Your task to perform on an android device: allow cookies in the chrome app Image 0: 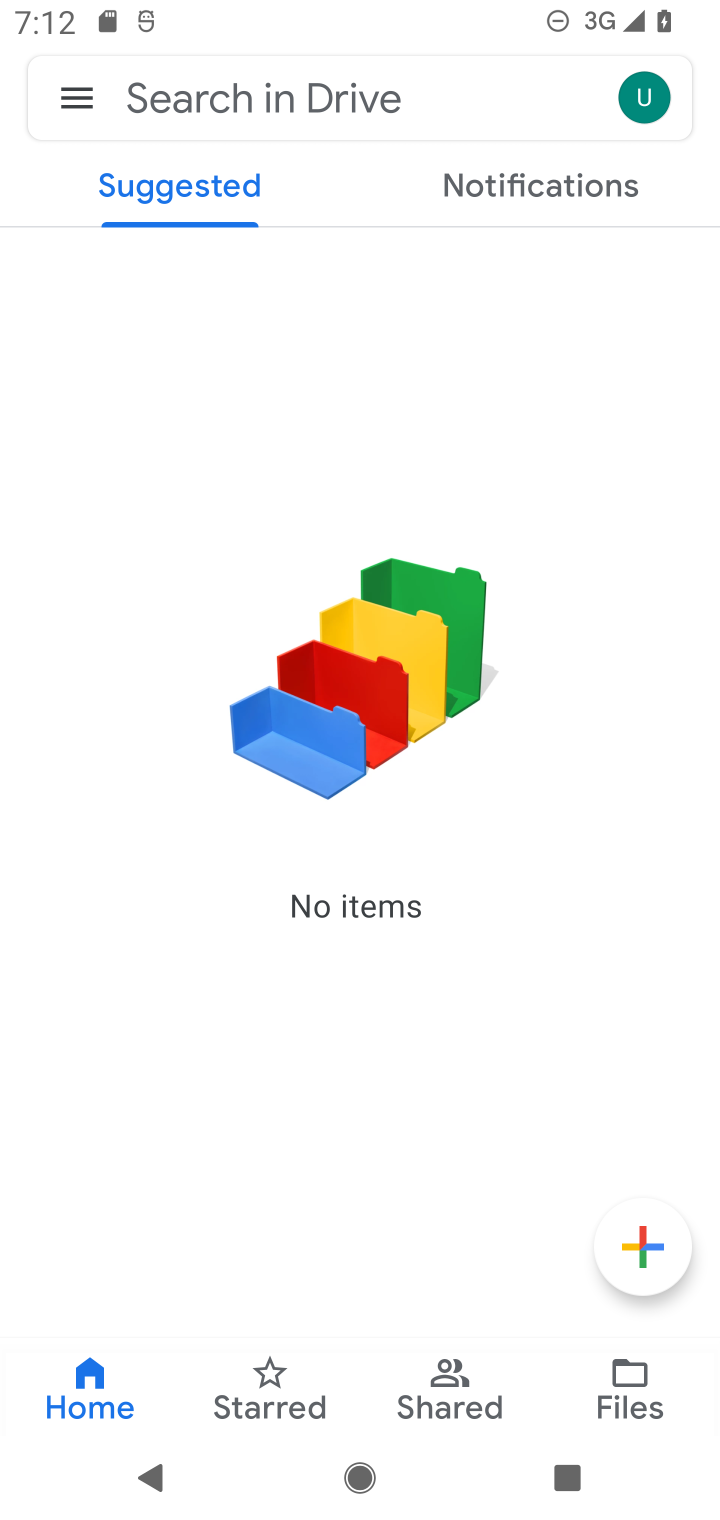
Step 0: press home button
Your task to perform on an android device: allow cookies in the chrome app Image 1: 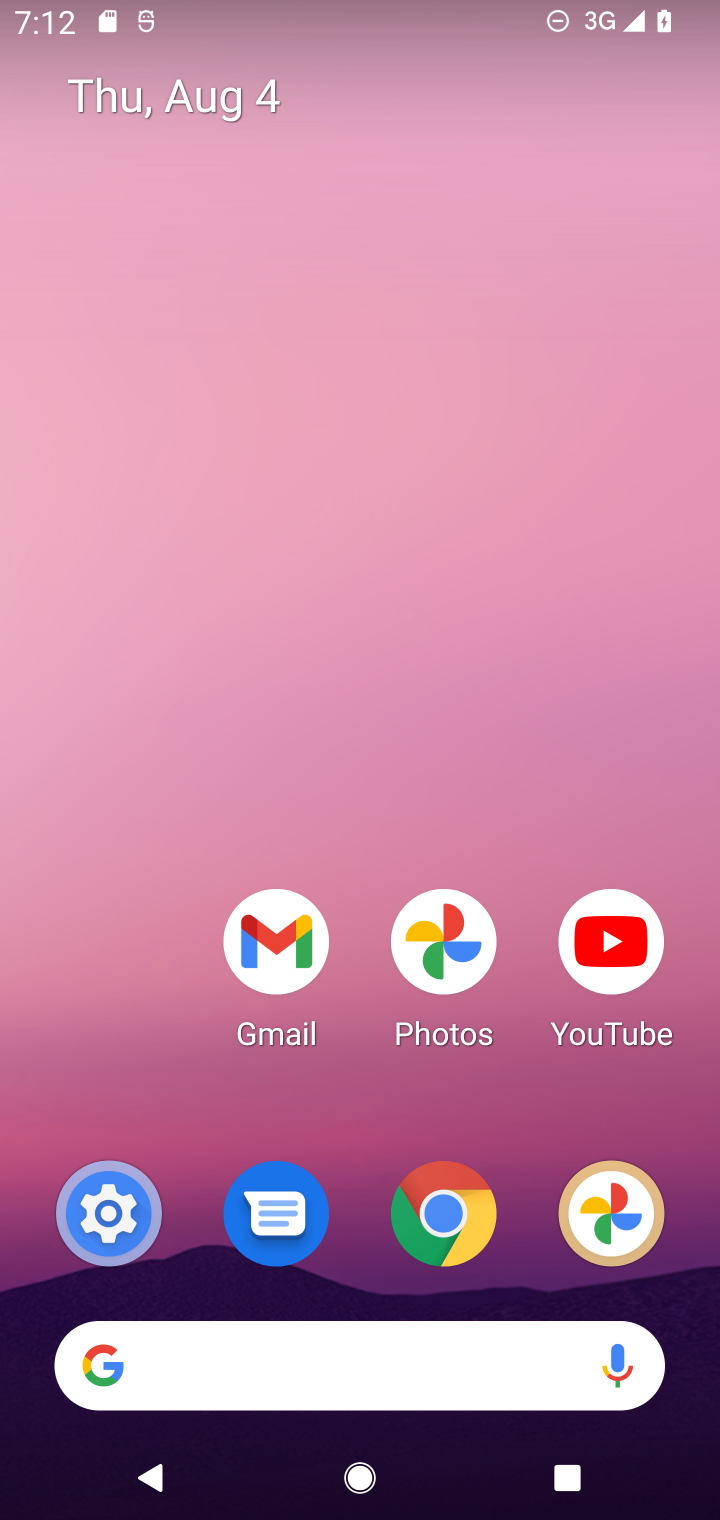
Step 1: drag from (154, 1099) to (139, 249)
Your task to perform on an android device: allow cookies in the chrome app Image 2: 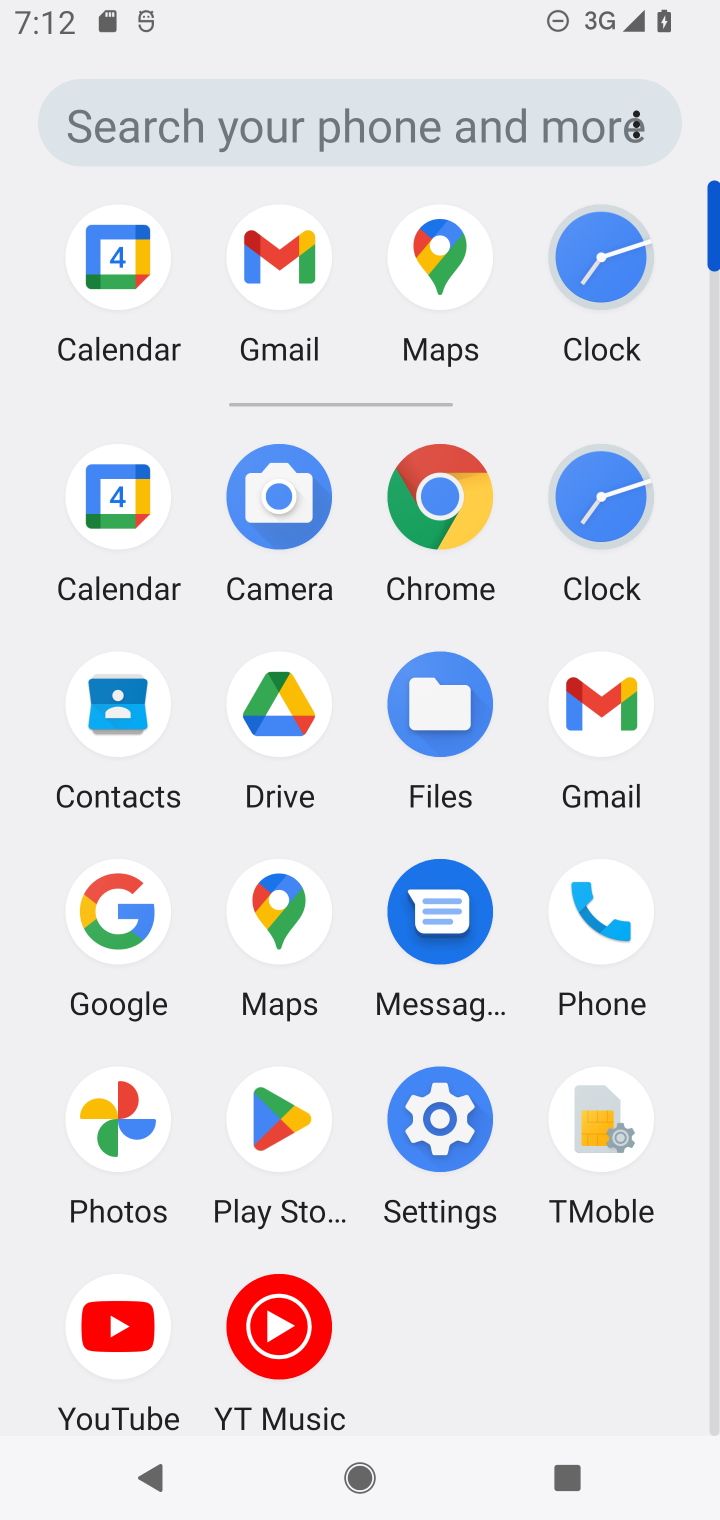
Step 2: click (421, 516)
Your task to perform on an android device: allow cookies in the chrome app Image 3: 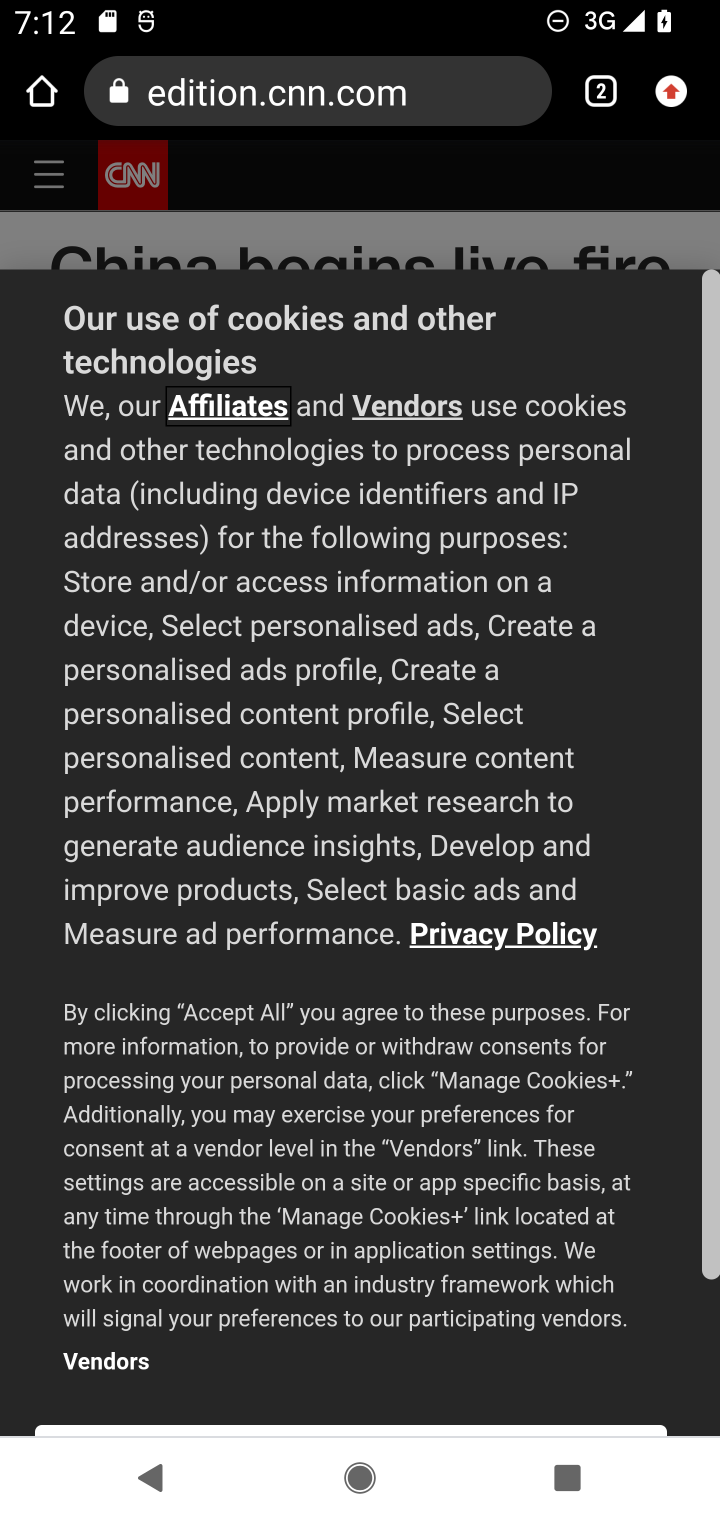
Step 3: click (672, 99)
Your task to perform on an android device: allow cookies in the chrome app Image 4: 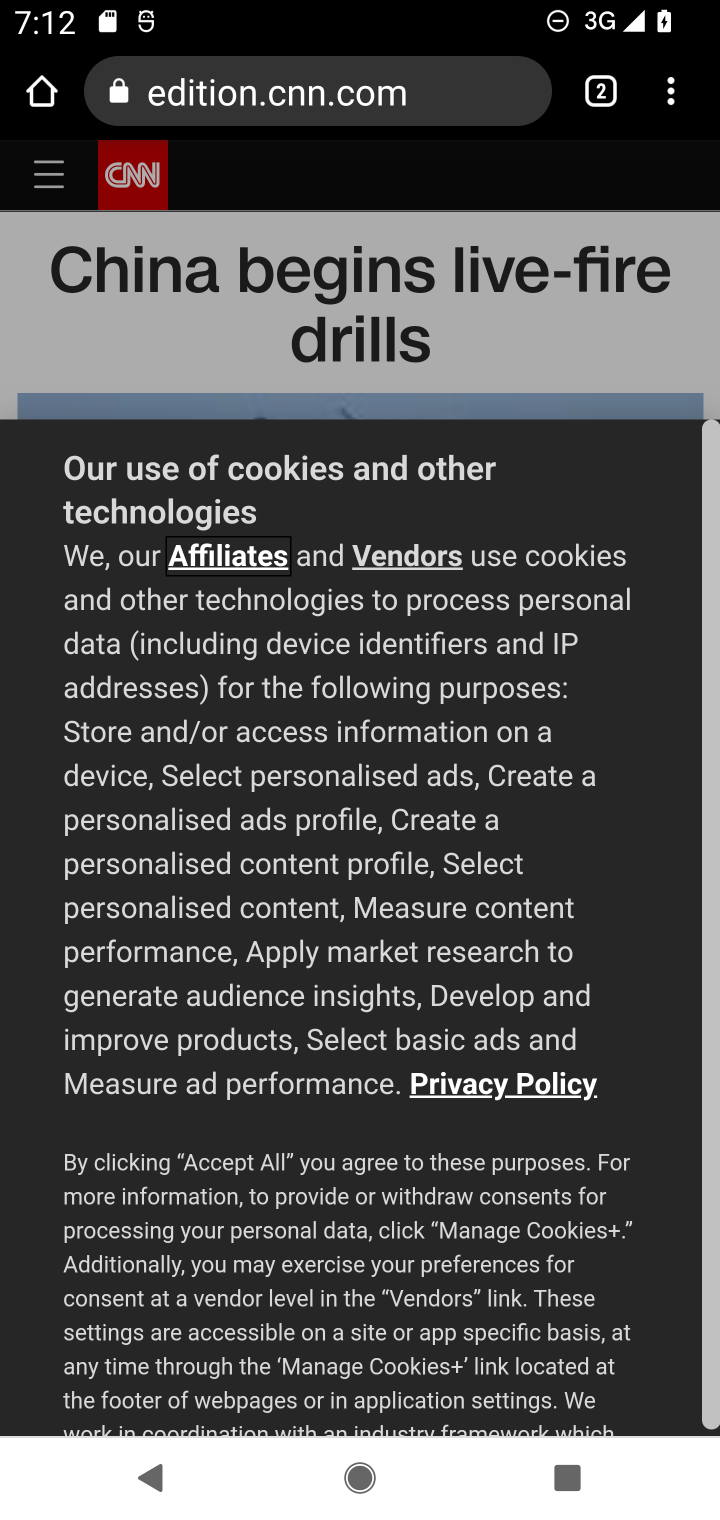
Step 4: click (678, 109)
Your task to perform on an android device: allow cookies in the chrome app Image 5: 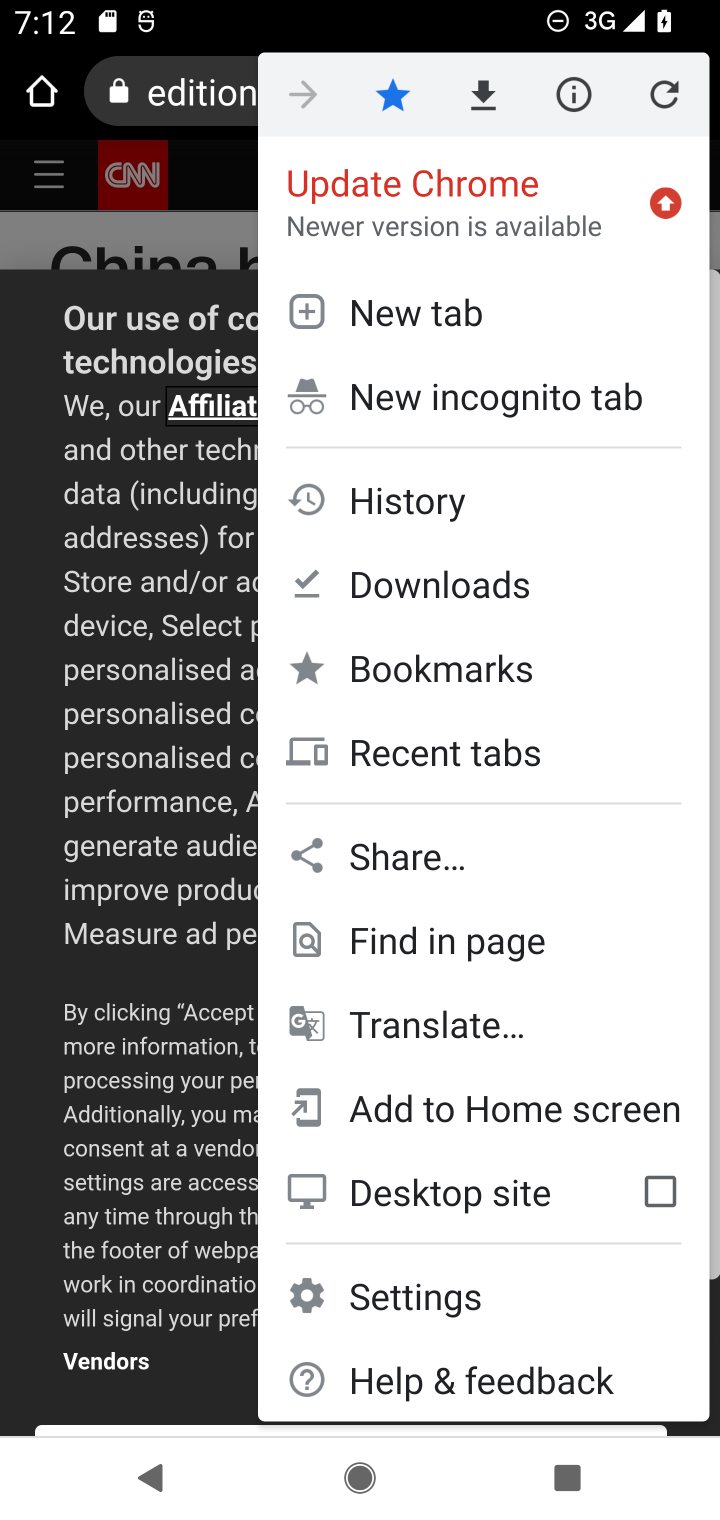
Step 5: drag from (532, 1088) to (548, 756)
Your task to perform on an android device: allow cookies in the chrome app Image 6: 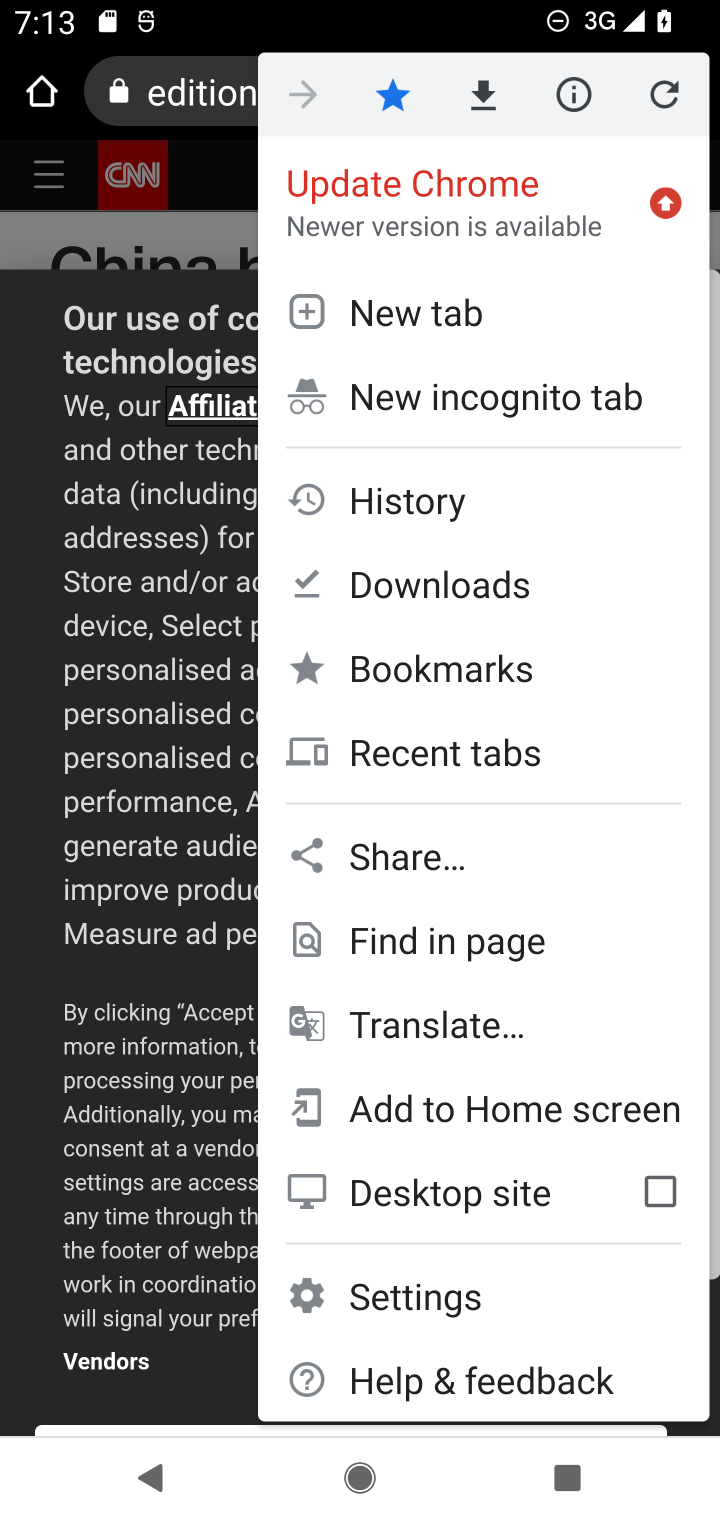
Step 6: click (422, 1296)
Your task to perform on an android device: allow cookies in the chrome app Image 7: 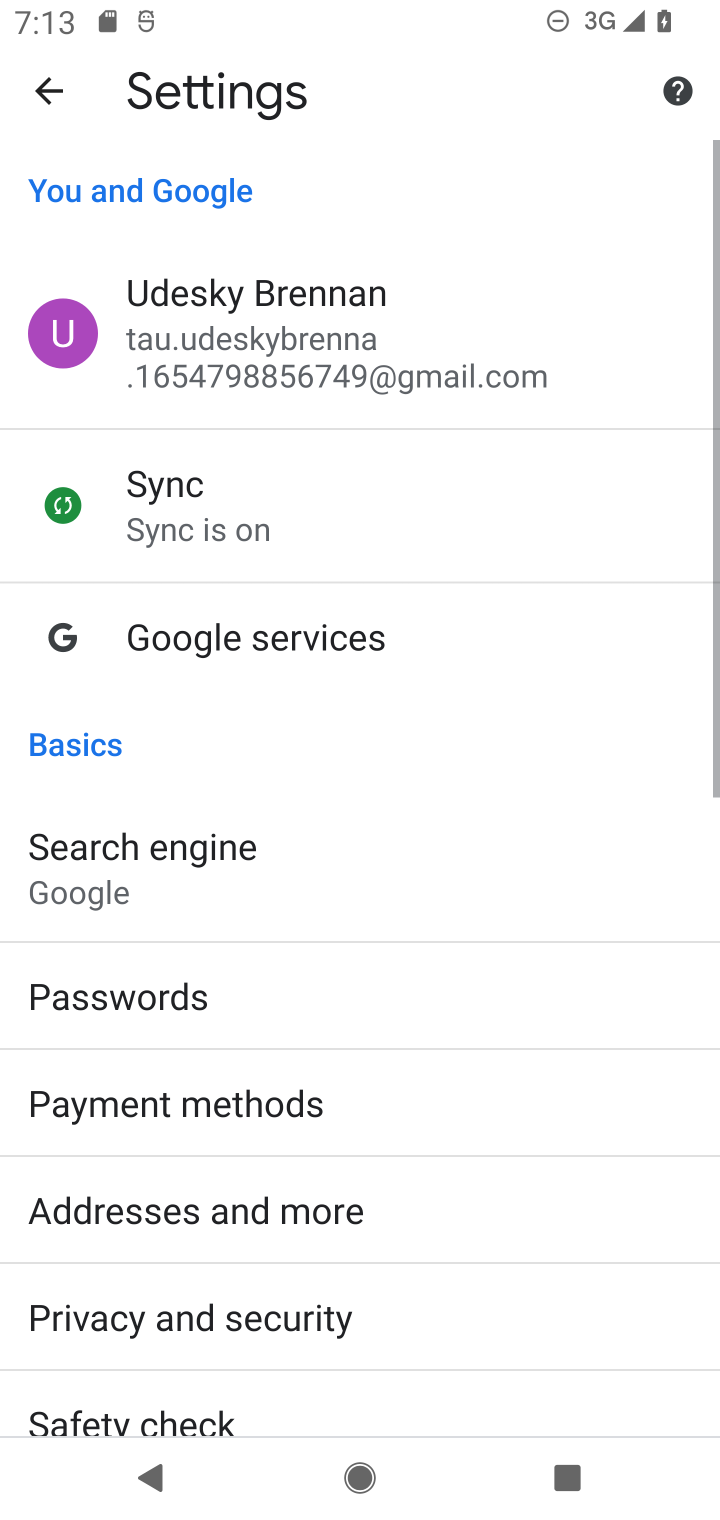
Step 7: drag from (531, 1175) to (517, 529)
Your task to perform on an android device: allow cookies in the chrome app Image 8: 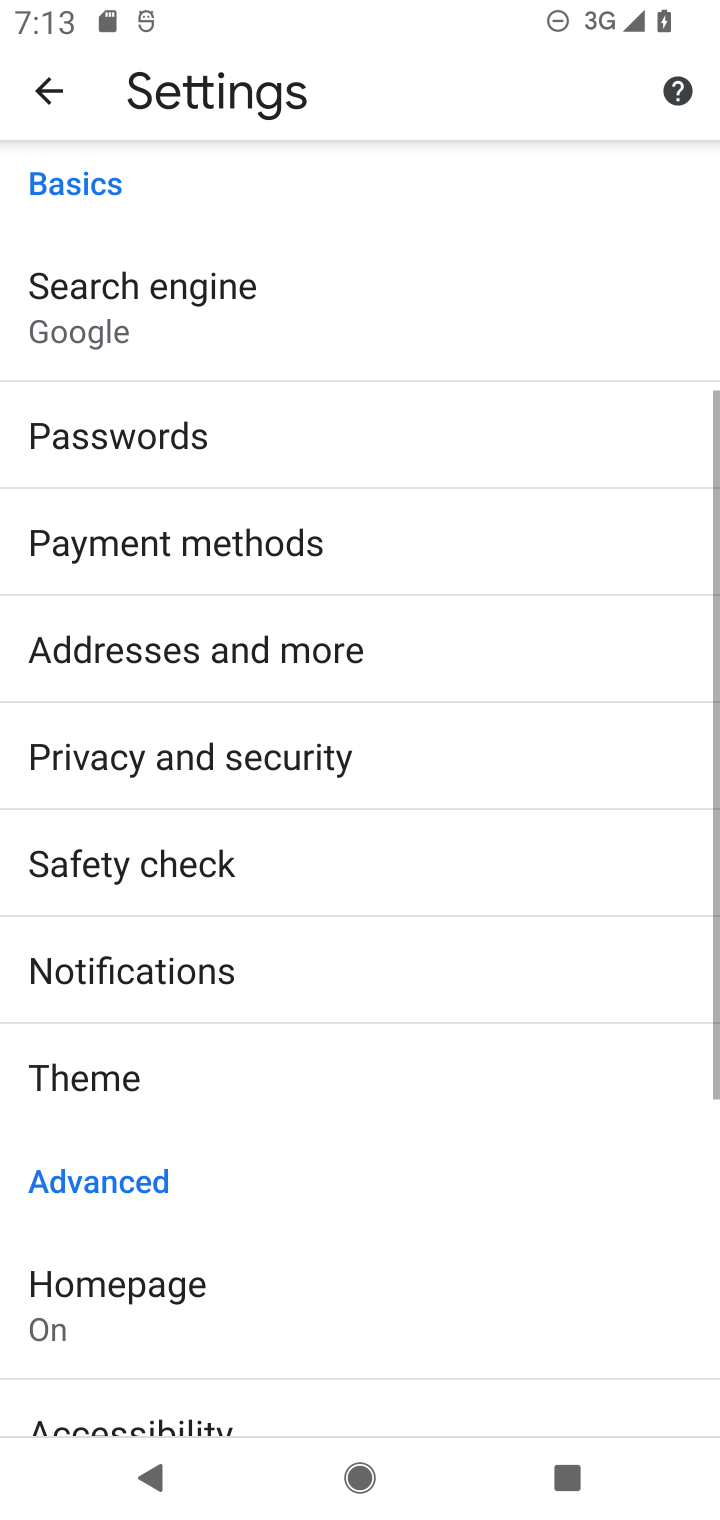
Step 8: drag from (552, 1084) to (509, 685)
Your task to perform on an android device: allow cookies in the chrome app Image 9: 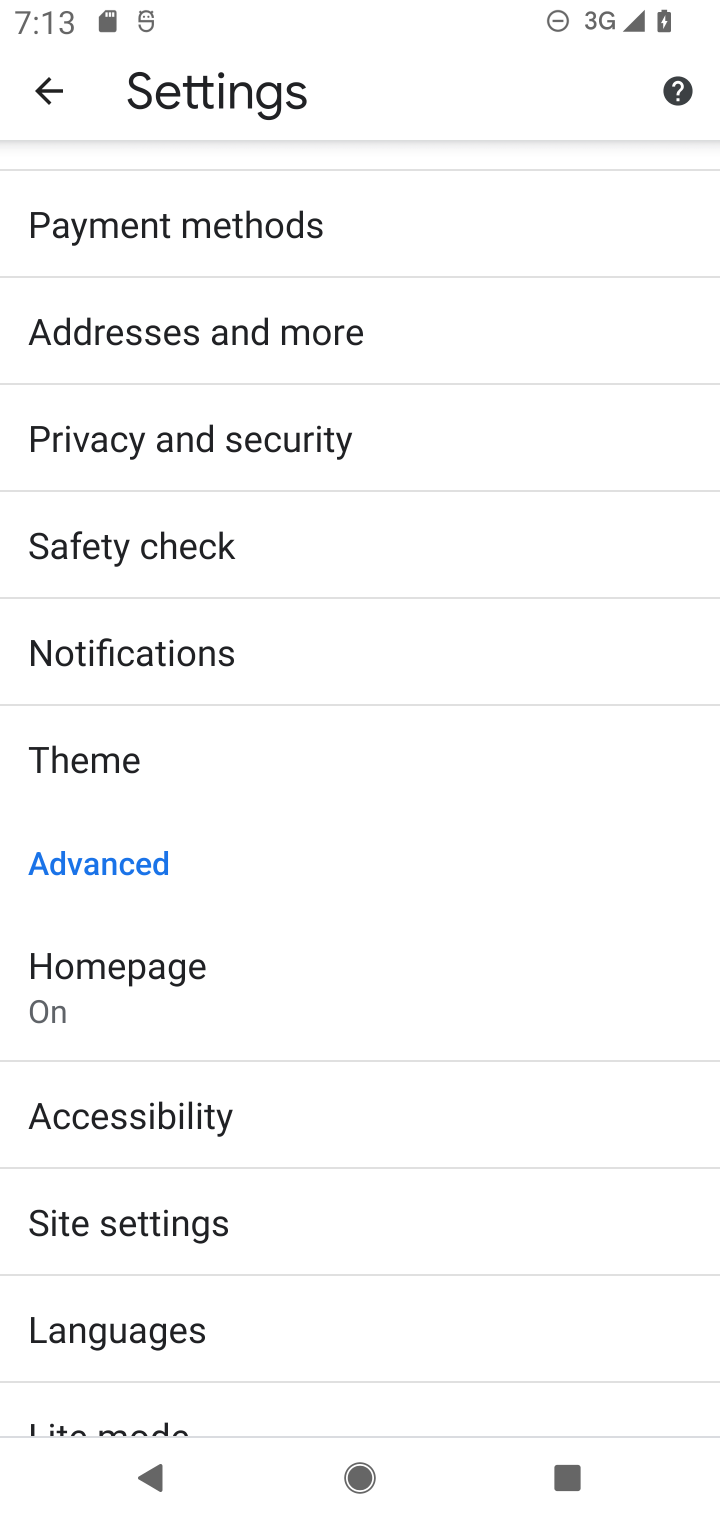
Step 9: drag from (462, 1237) to (490, 526)
Your task to perform on an android device: allow cookies in the chrome app Image 10: 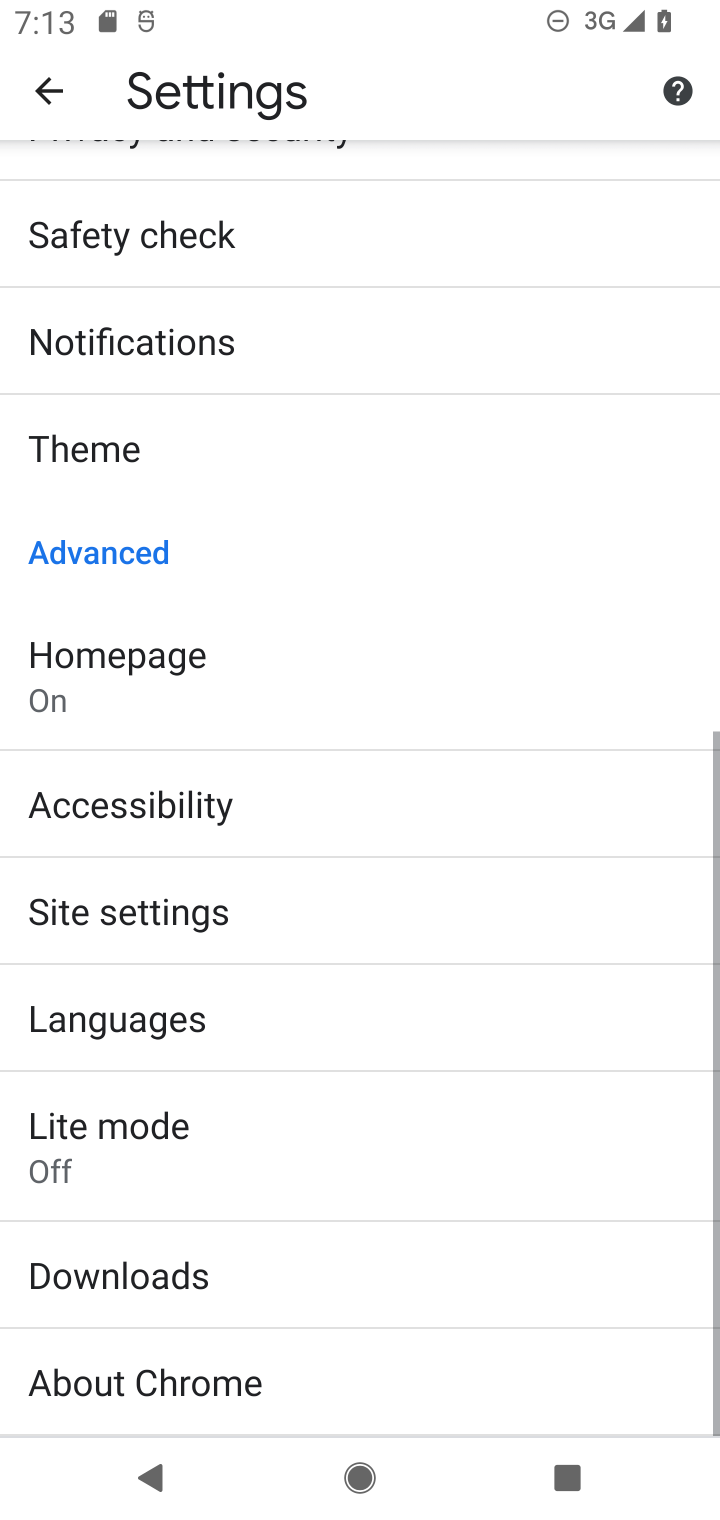
Step 10: drag from (457, 1315) to (452, 827)
Your task to perform on an android device: allow cookies in the chrome app Image 11: 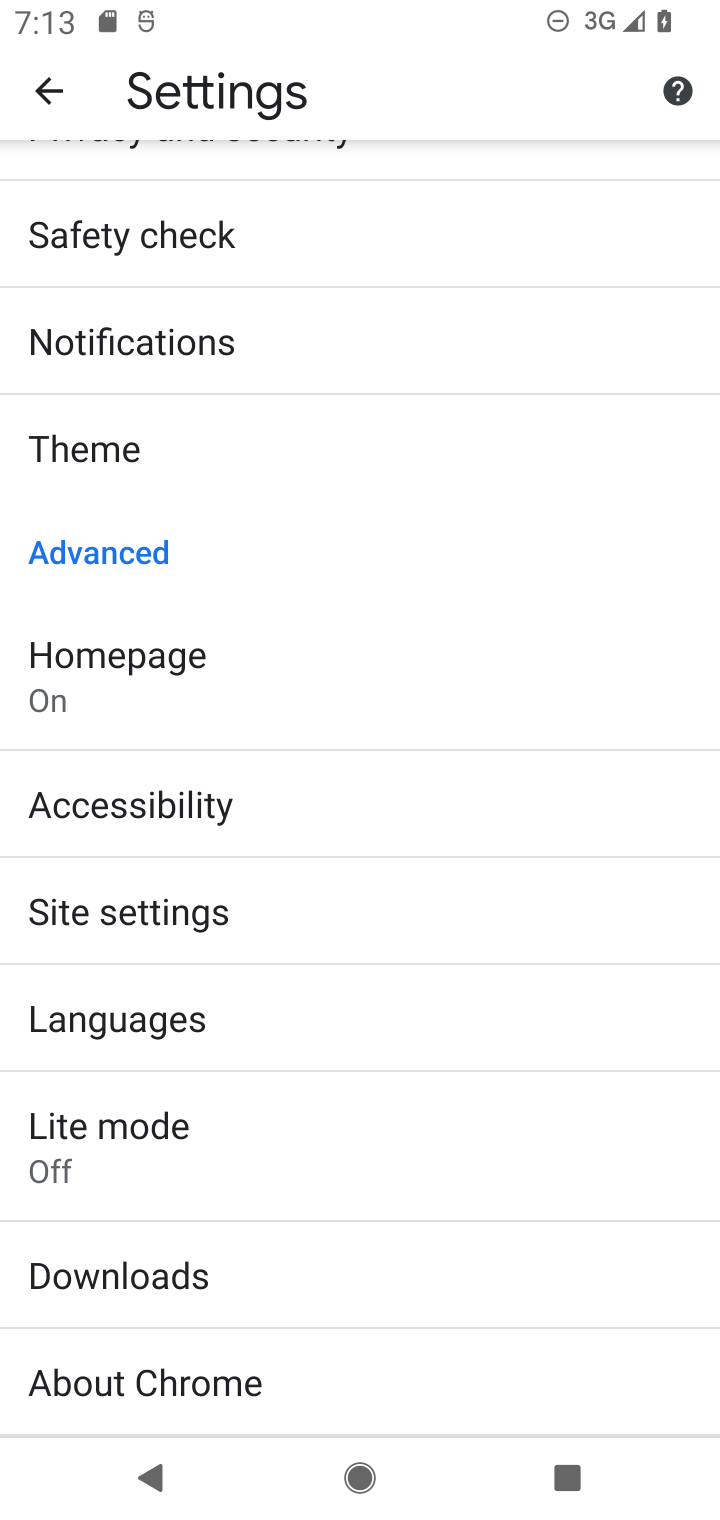
Step 11: drag from (451, 407) to (451, 1000)
Your task to perform on an android device: allow cookies in the chrome app Image 12: 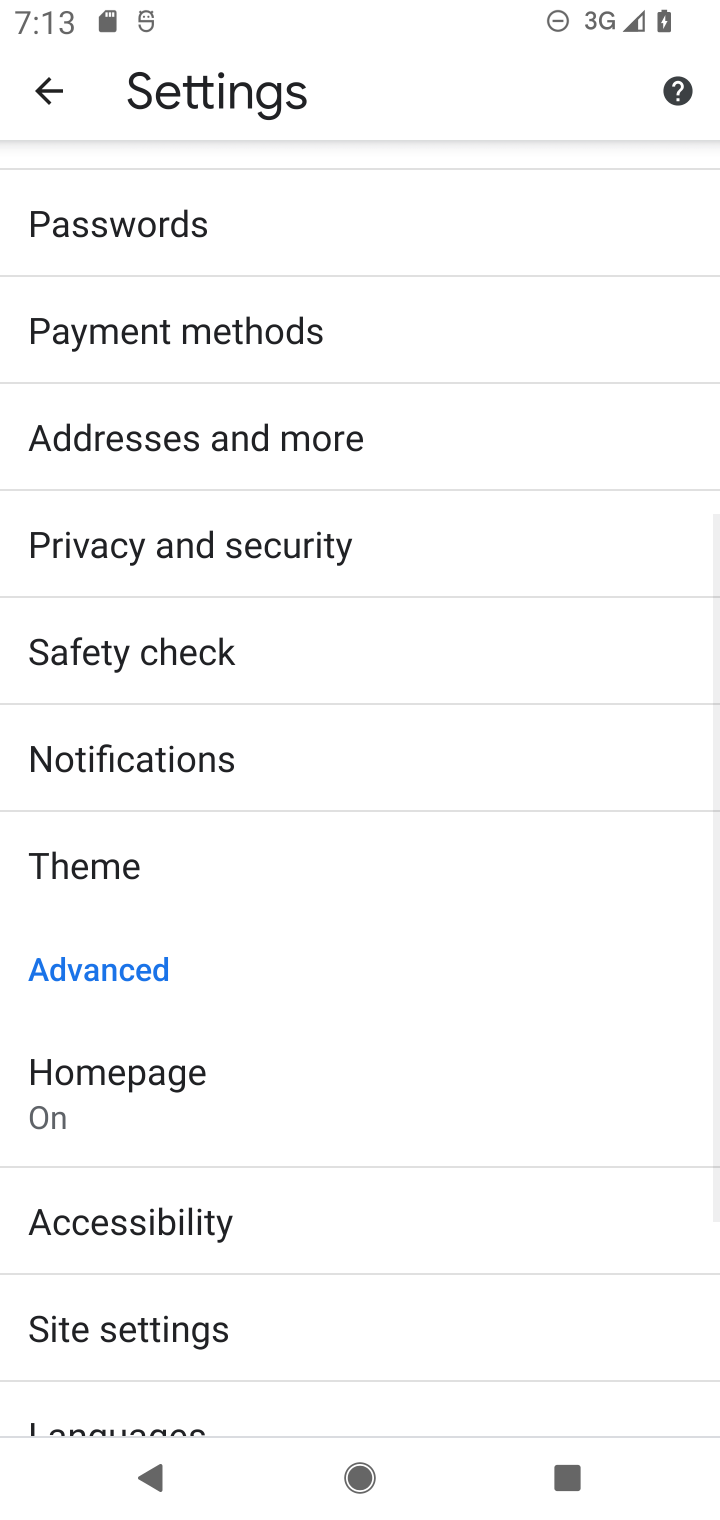
Step 12: drag from (461, 1257) to (452, 614)
Your task to perform on an android device: allow cookies in the chrome app Image 13: 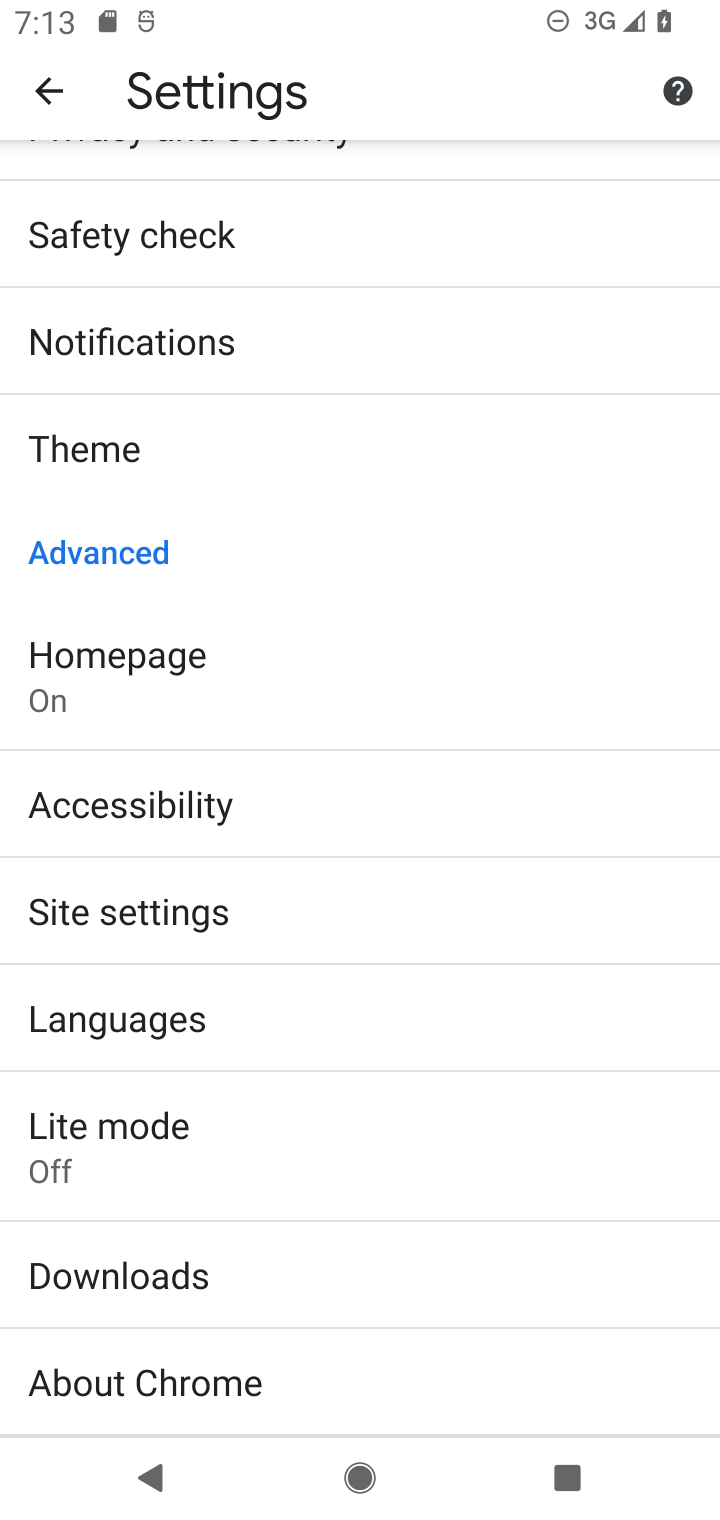
Step 13: click (416, 938)
Your task to perform on an android device: allow cookies in the chrome app Image 14: 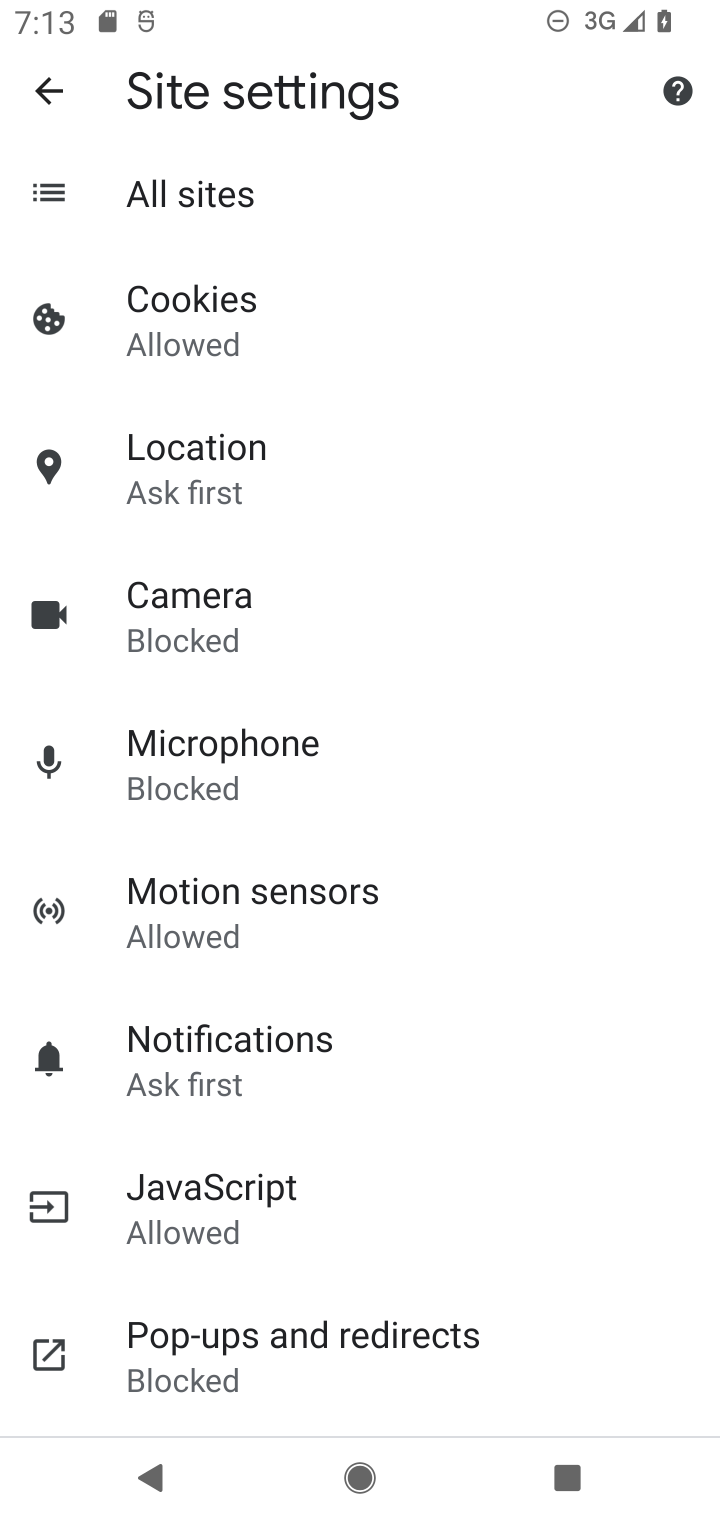
Step 14: drag from (497, 1042) to (520, 565)
Your task to perform on an android device: allow cookies in the chrome app Image 15: 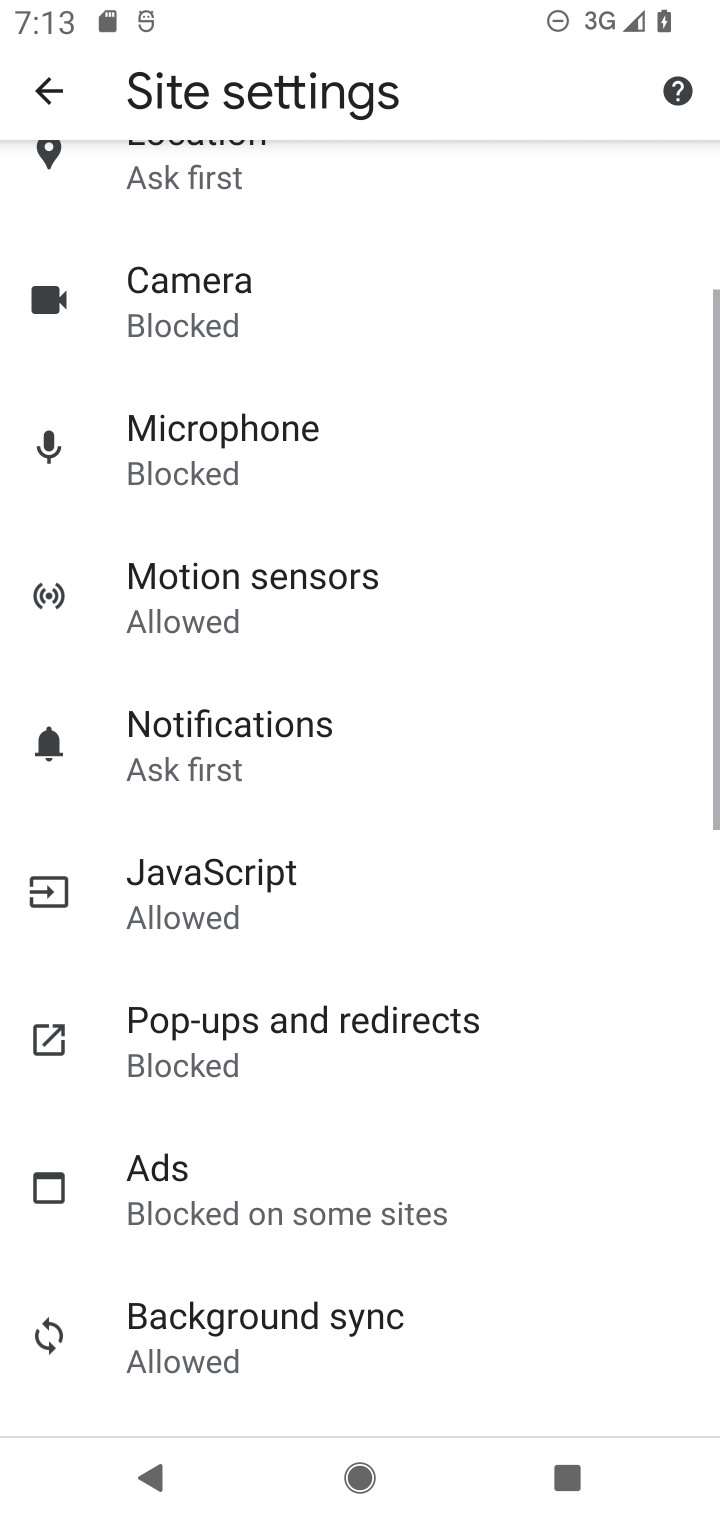
Step 15: drag from (565, 1230) to (569, 710)
Your task to perform on an android device: allow cookies in the chrome app Image 16: 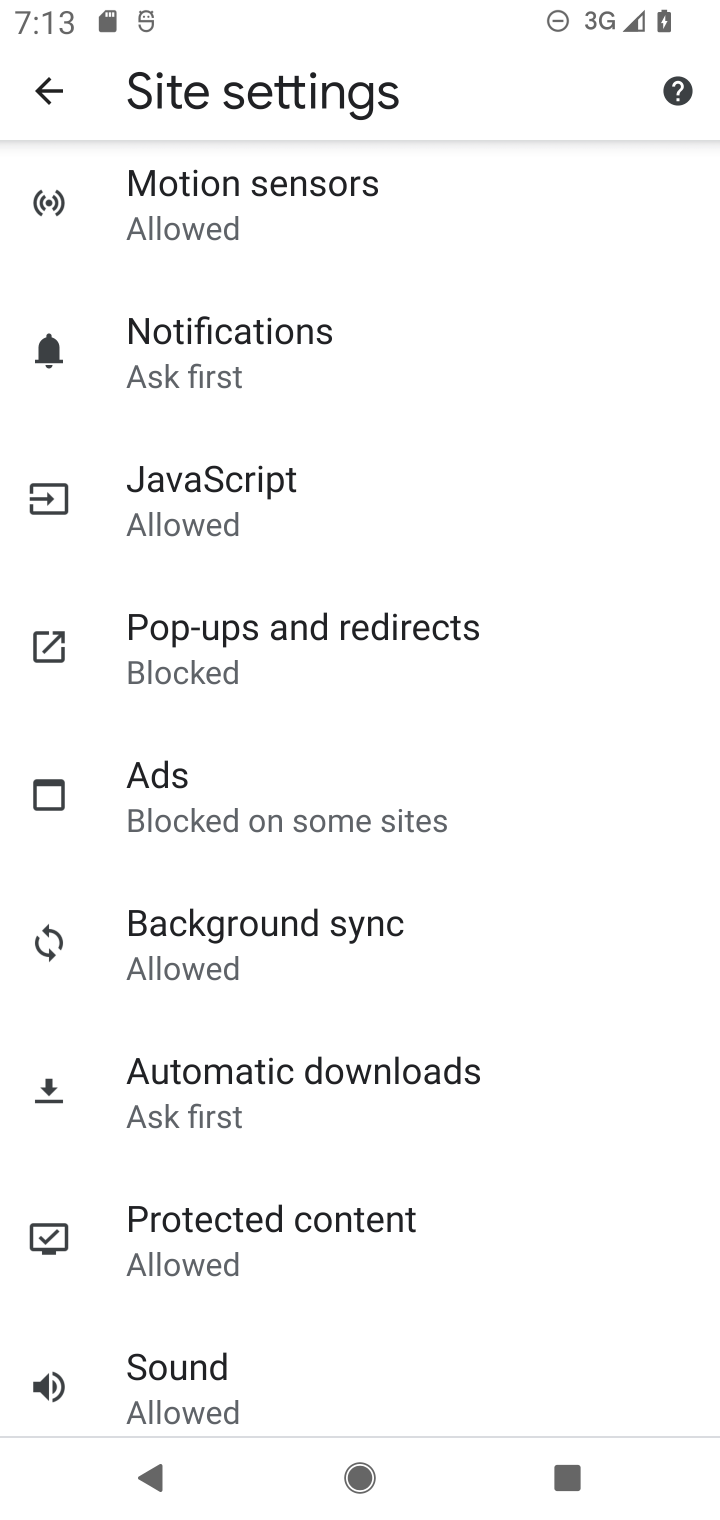
Step 16: drag from (609, 1315) to (598, 703)
Your task to perform on an android device: allow cookies in the chrome app Image 17: 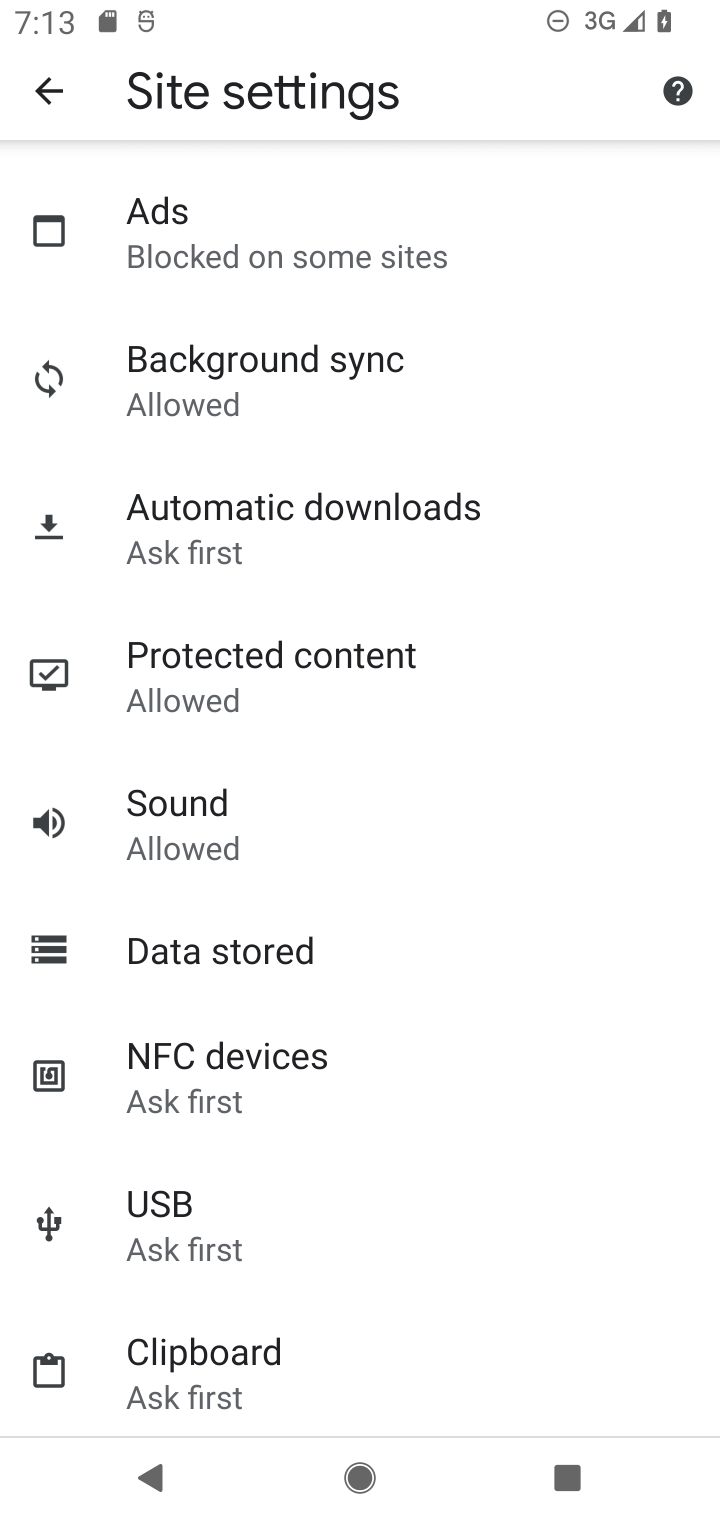
Step 17: drag from (472, 1259) to (489, 714)
Your task to perform on an android device: allow cookies in the chrome app Image 18: 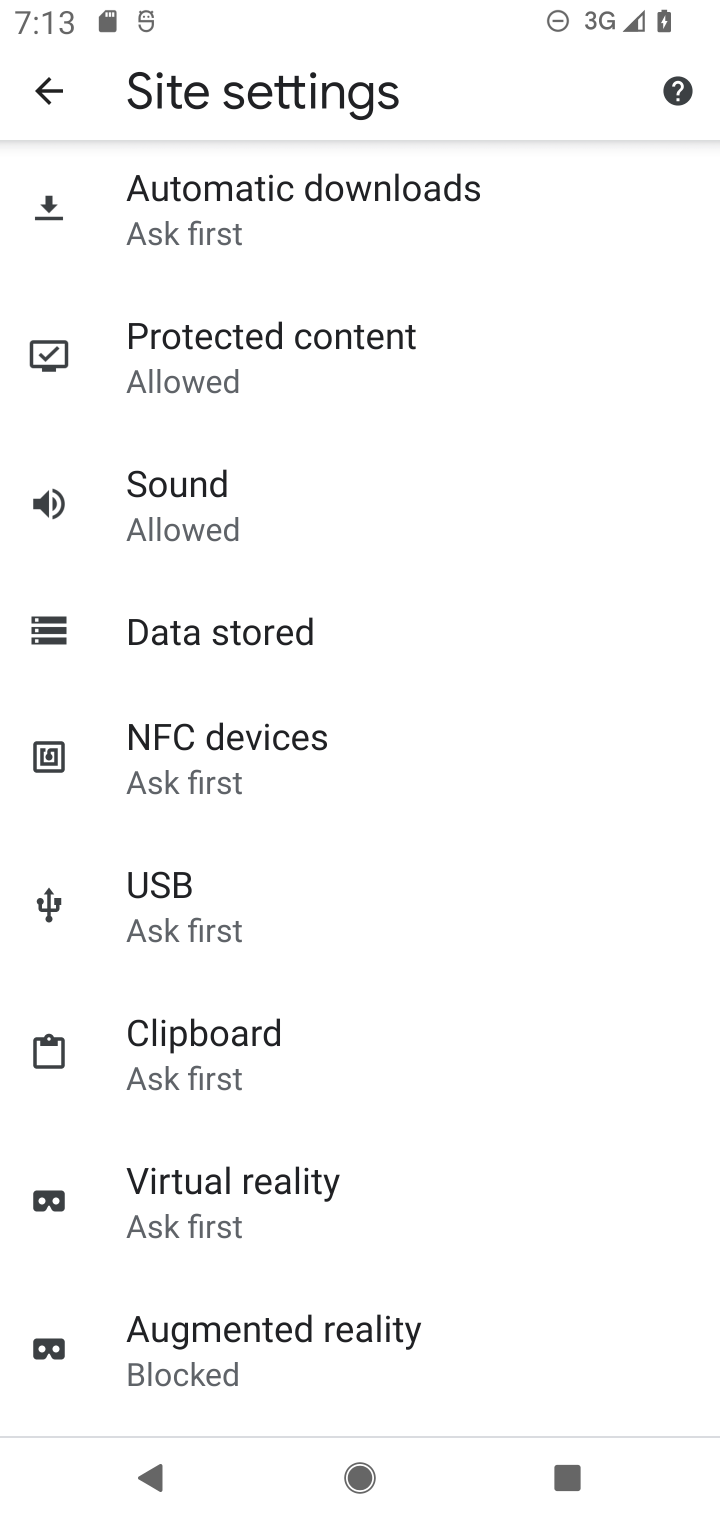
Step 18: drag from (589, 436) to (561, 936)
Your task to perform on an android device: allow cookies in the chrome app Image 19: 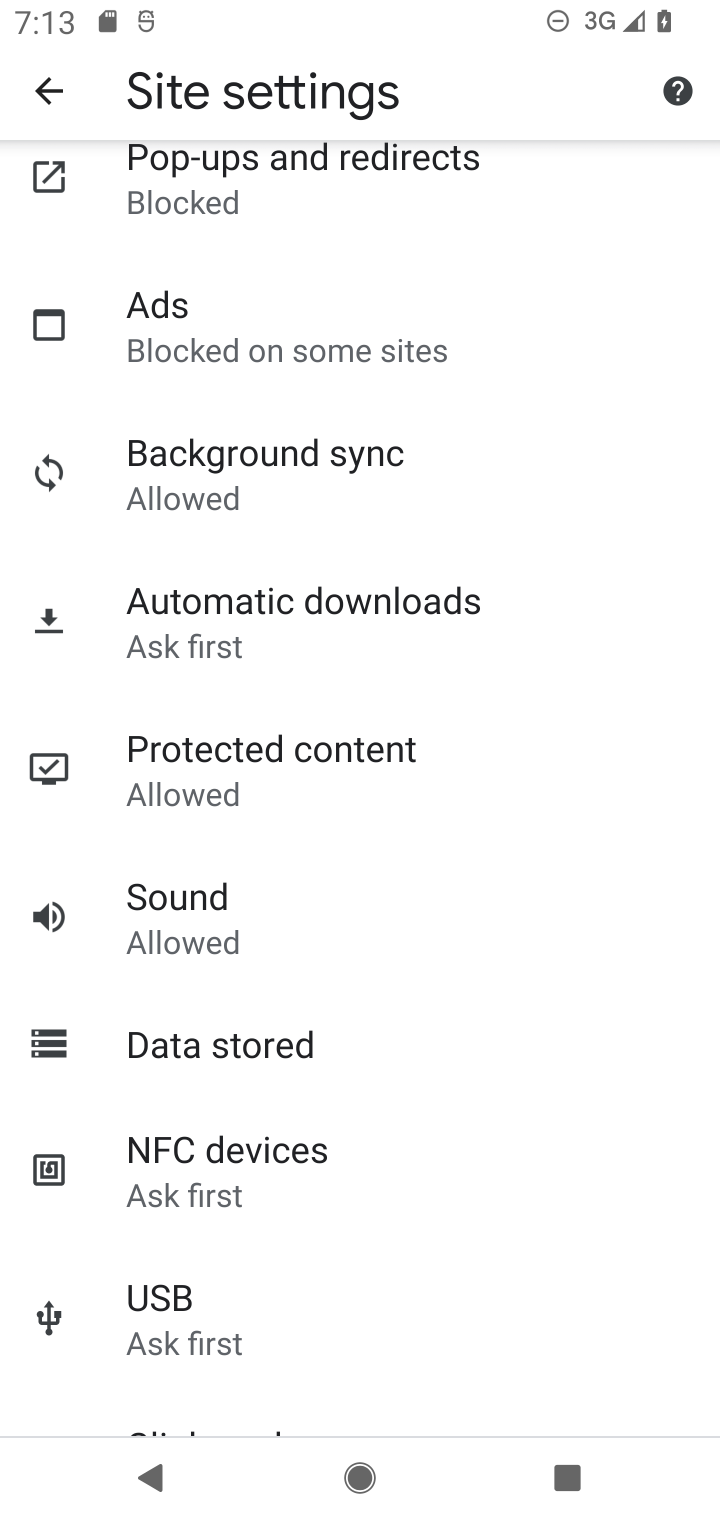
Step 19: drag from (584, 317) to (578, 808)
Your task to perform on an android device: allow cookies in the chrome app Image 20: 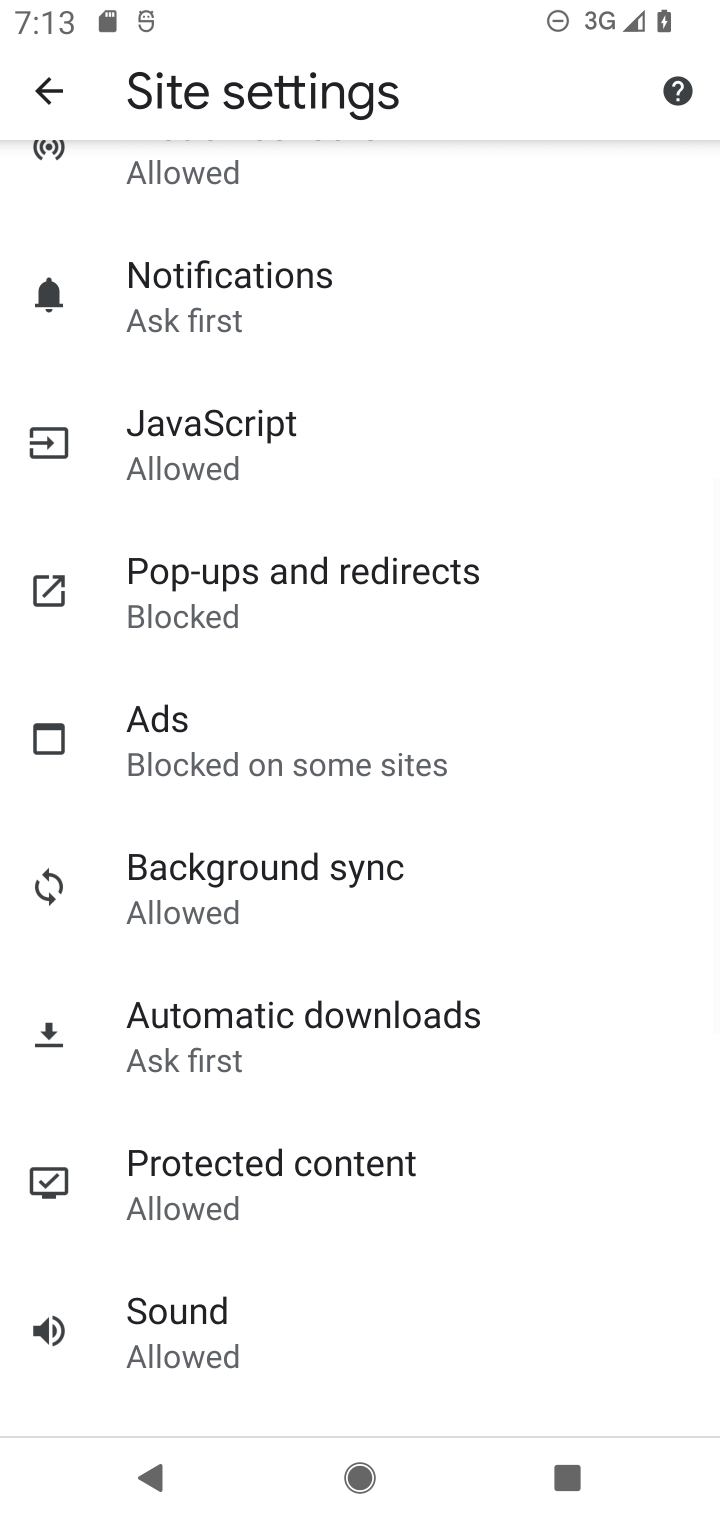
Step 20: drag from (570, 290) to (570, 735)
Your task to perform on an android device: allow cookies in the chrome app Image 21: 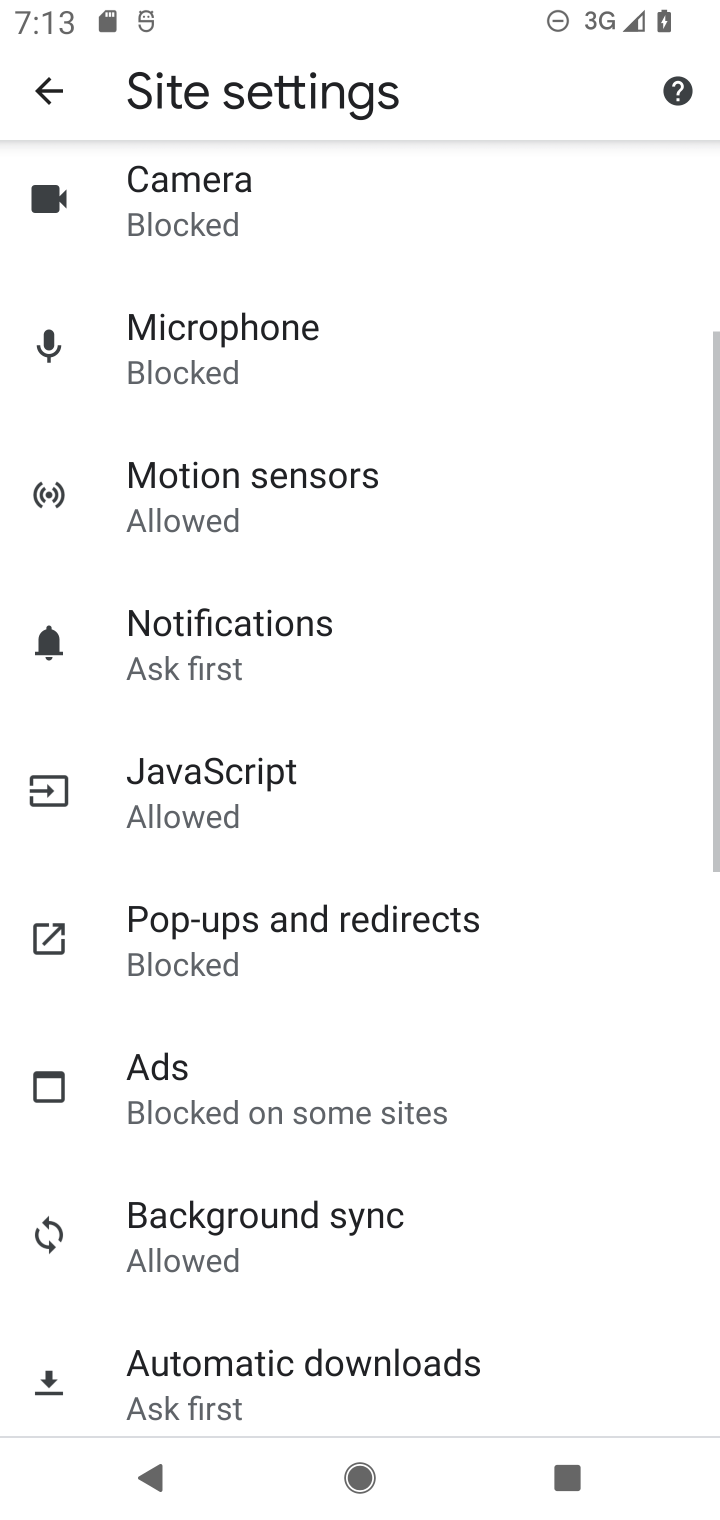
Step 21: drag from (570, 265) to (568, 780)
Your task to perform on an android device: allow cookies in the chrome app Image 22: 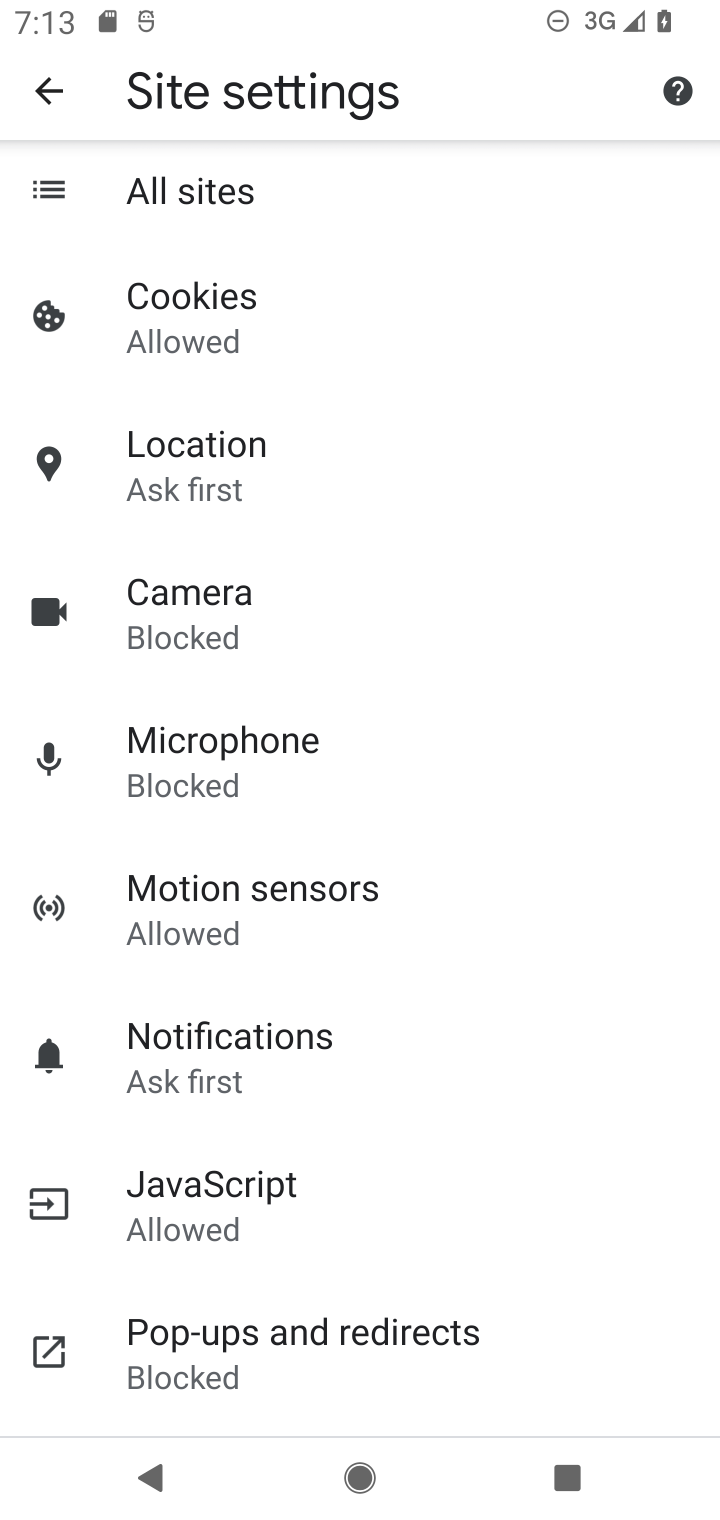
Step 22: drag from (532, 337) to (540, 561)
Your task to perform on an android device: allow cookies in the chrome app Image 23: 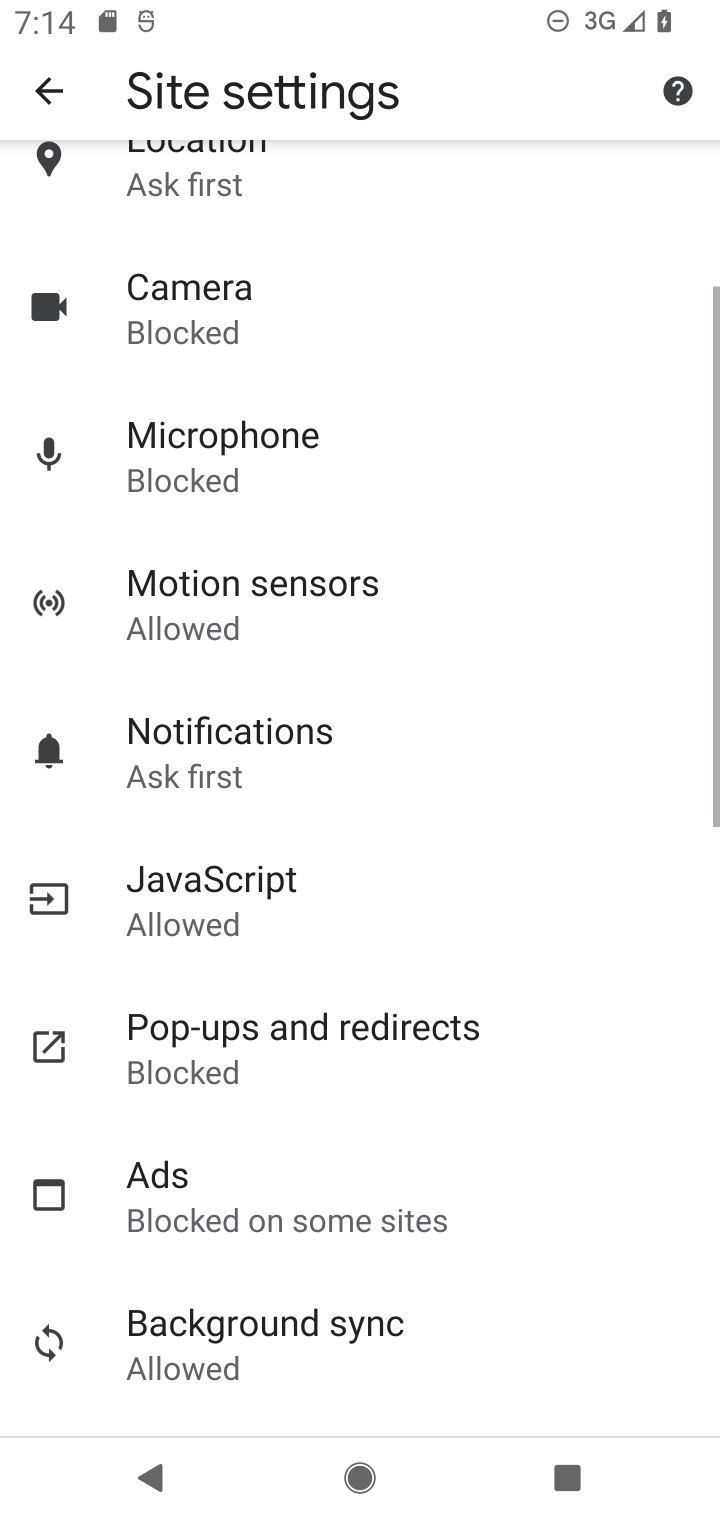
Step 23: drag from (528, 810) to (531, 705)
Your task to perform on an android device: allow cookies in the chrome app Image 24: 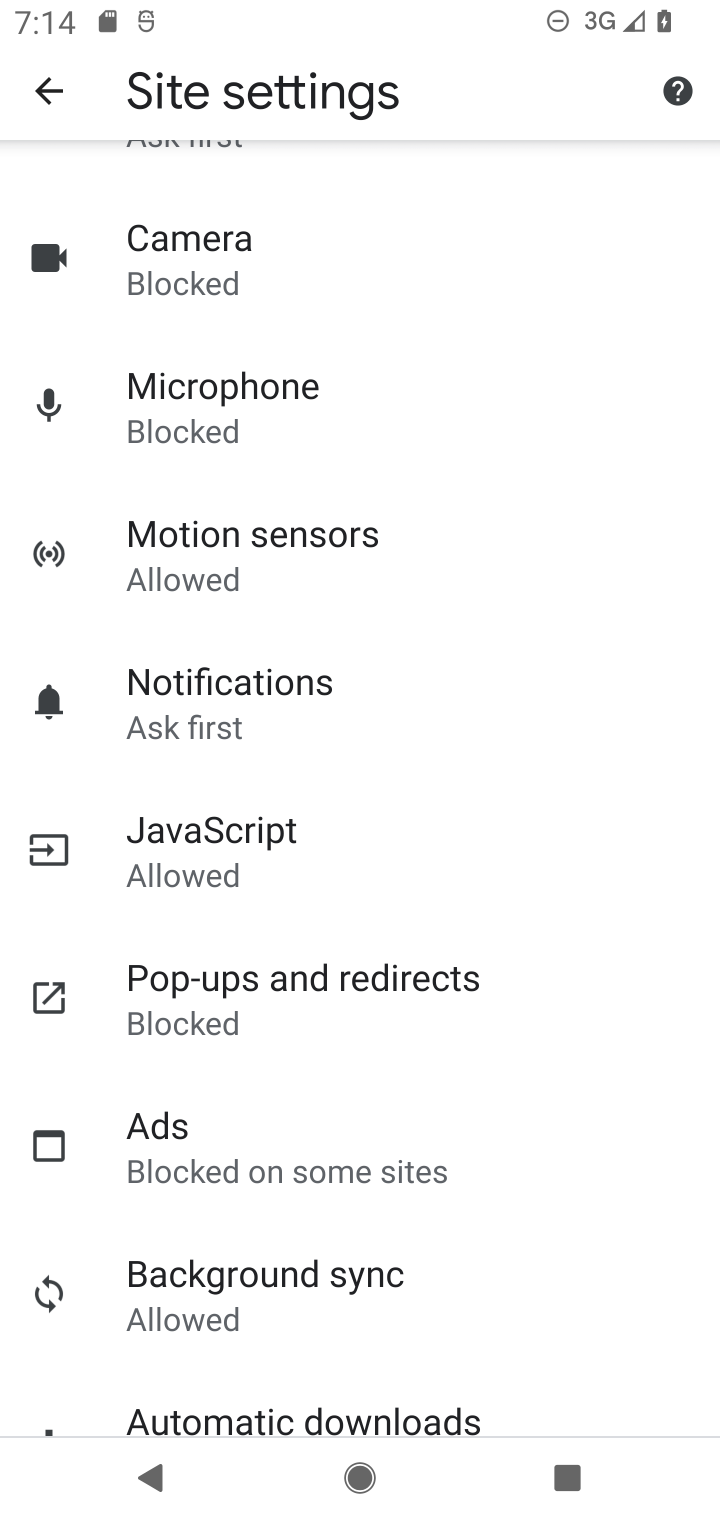
Step 24: drag from (501, 517) to (540, 1089)
Your task to perform on an android device: allow cookies in the chrome app Image 25: 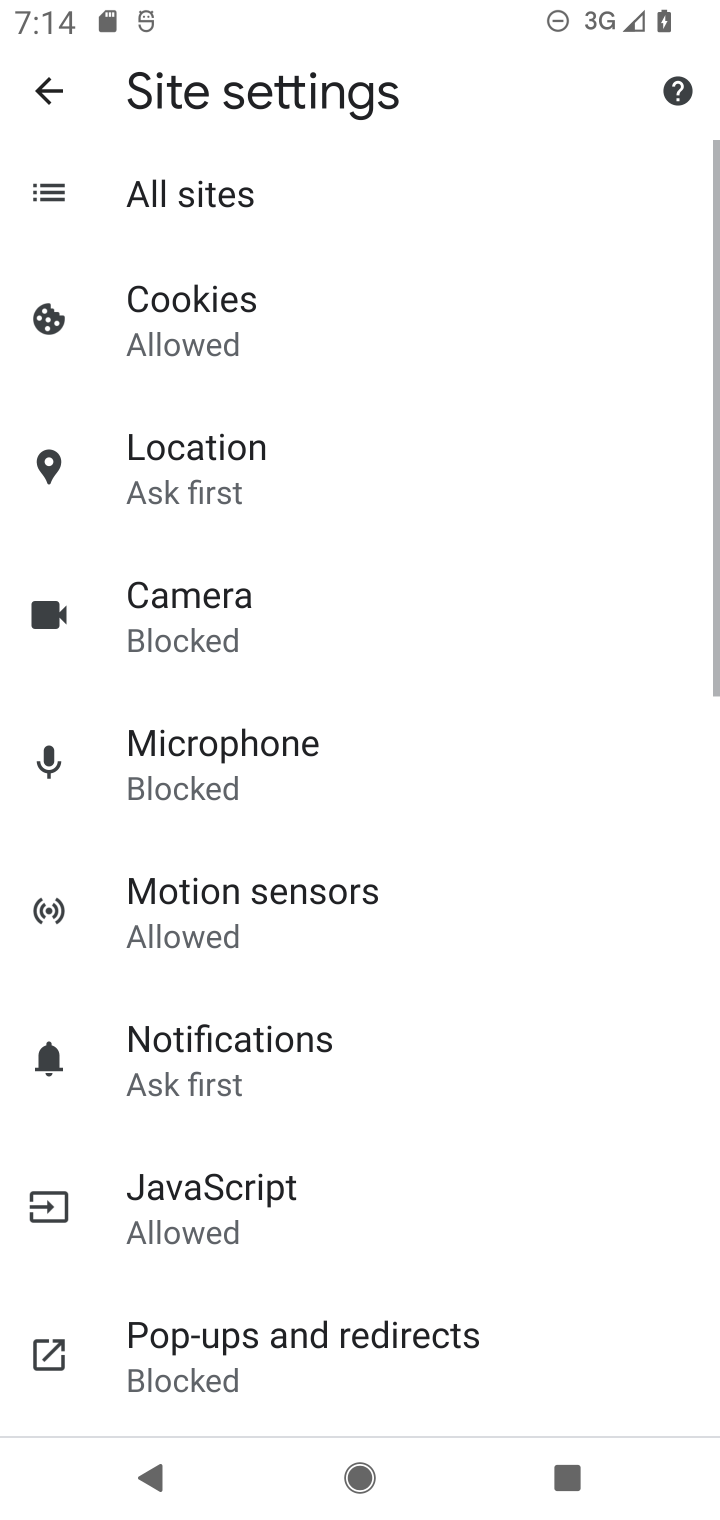
Step 25: click (262, 320)
Your task to perform on an android device: allow cookies in the chrome app Image 26: 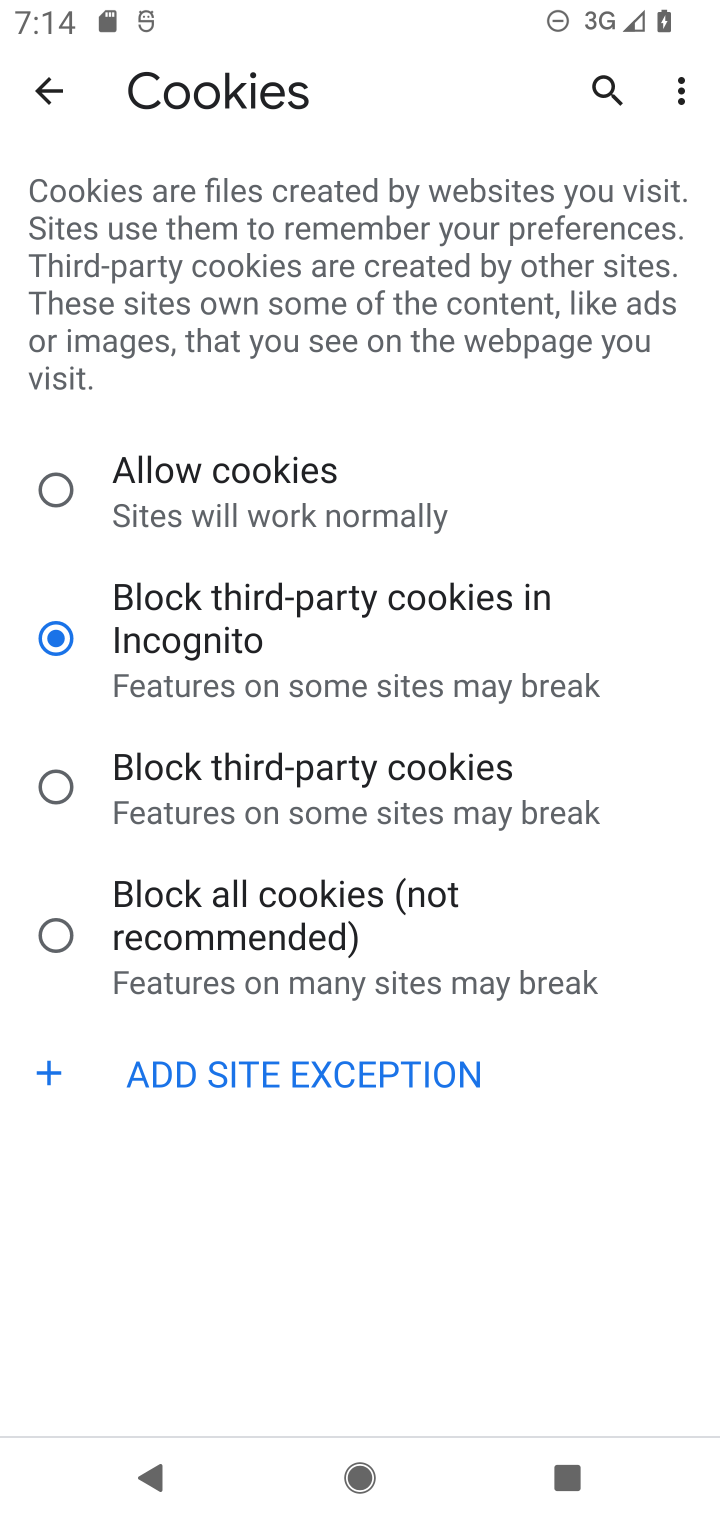
Step 26: click (52, 478)
Your task to perform on an android device: allow cookies in the chrome app Image 27: 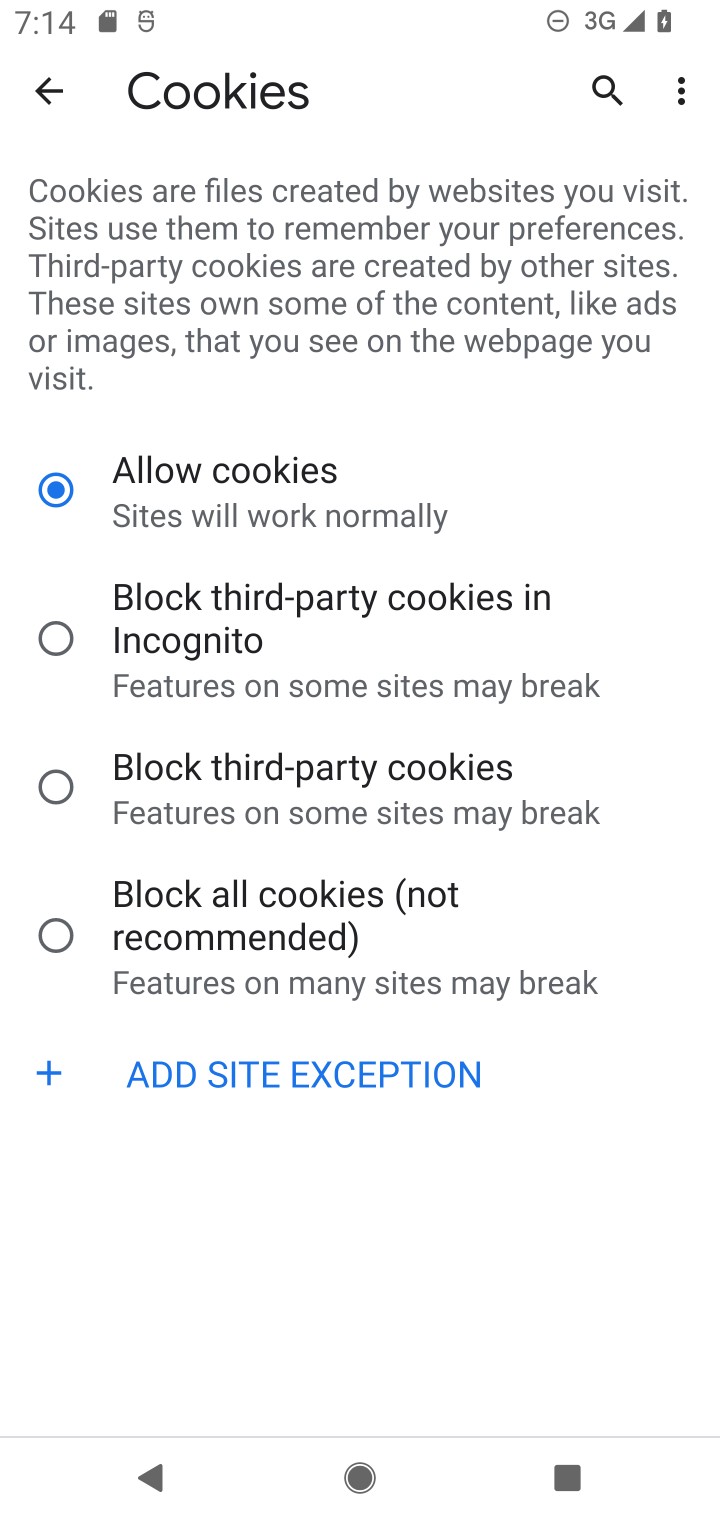
Step 27: task complete